Your task to perform on an android device: Open maps Image 0: 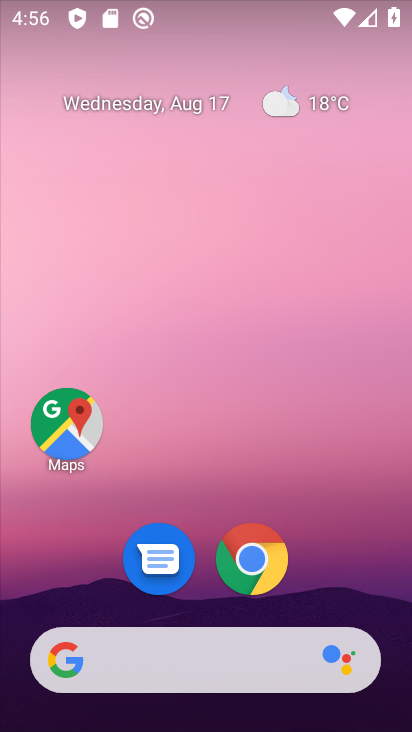
Step 0: click (56, 434)
Your task to perform on an android device: Open maps Image 1: 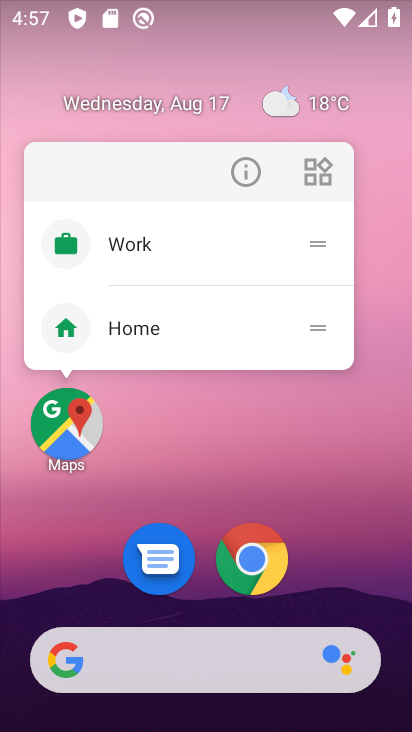
Step 1: click (54, 434)
Your task to perform on an android device: Open maps Image 2: 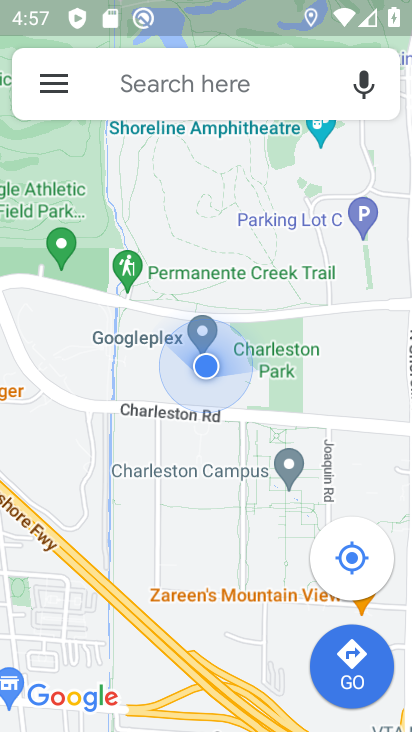
Step 2: task complete